Your task to perform on an android device: turn off picture-in-picture Image 0: 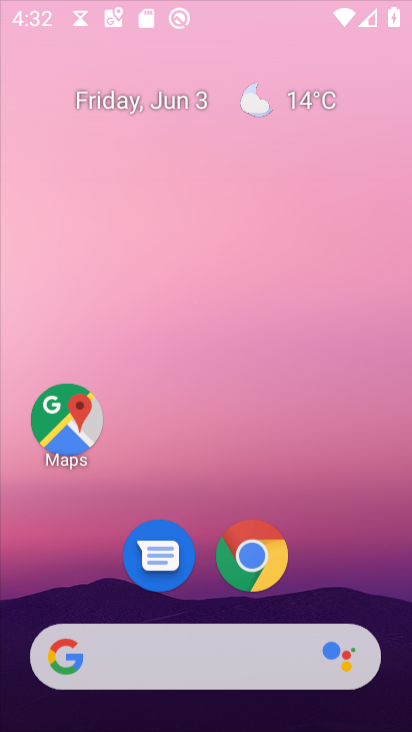
Step 0: drag from (276, 632) to (404, 146)
Your task to perform on an android device: turn off picture-in-picture Image 1: 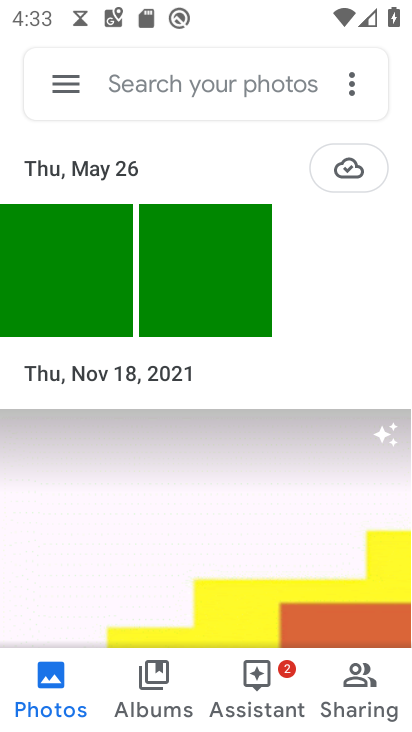
Step 1: press home button
Your task to perform on an android device: turn off picture-in-picture Image 2: 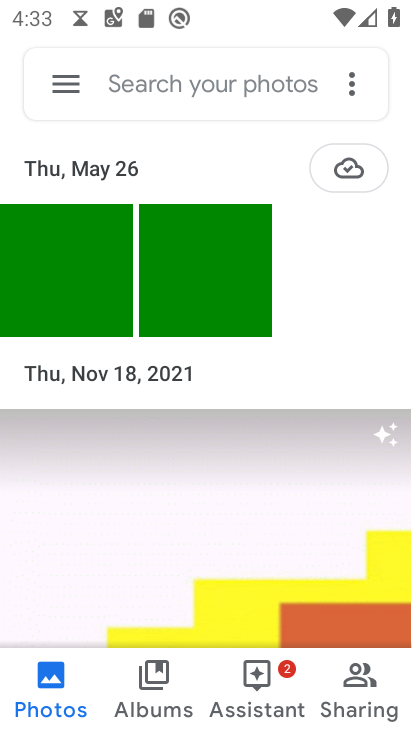
Step 2: press home button
Your task to perform on an android device: turn off picture-in-picture Image 3: 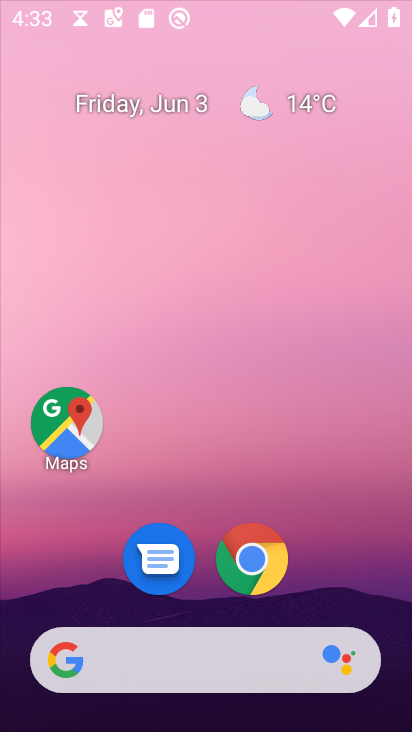
Step 3: press home button
Your task to perform on an android device: turn off picture-in-picture Image 4: 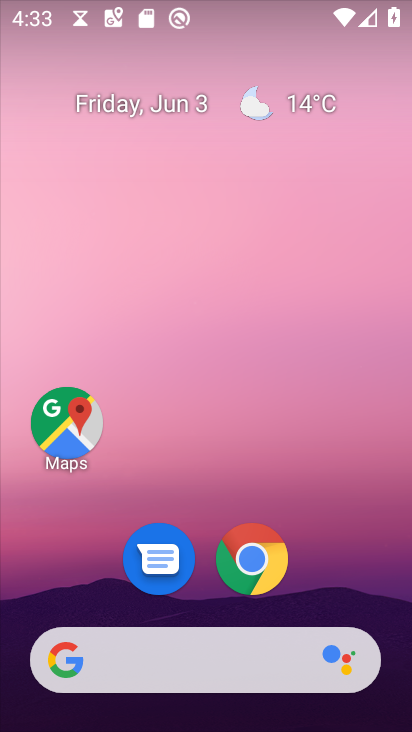
Step 4: drag from (228, 672) to (100, 44)
Your task to perform on an android device: turn off picture-in-picture Image 5: 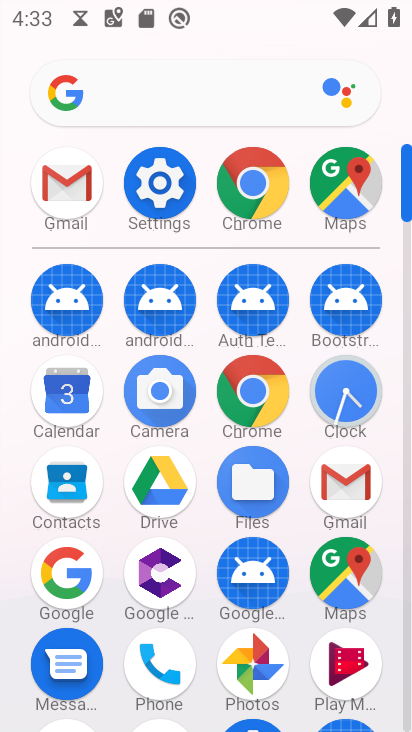
Step 5: click (259, 185)
Your task to perform on an android device: turn off picture-in-picture Image 6: 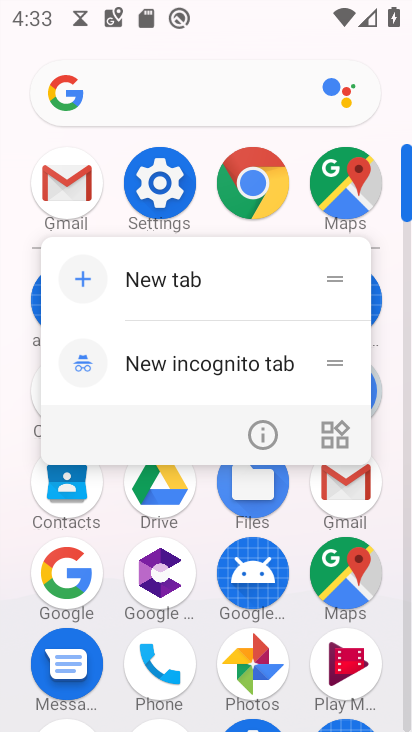
Step 6: click (257, 441)
Your task to perform on an android device: turn off picture-in-picture Image 7: 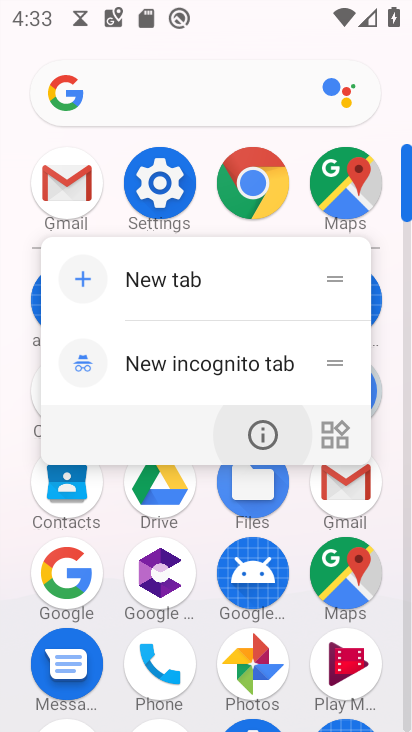
Step 7: click (257, 441)
Your task to perform on an android device: turn off picture-in-picture Image 8: 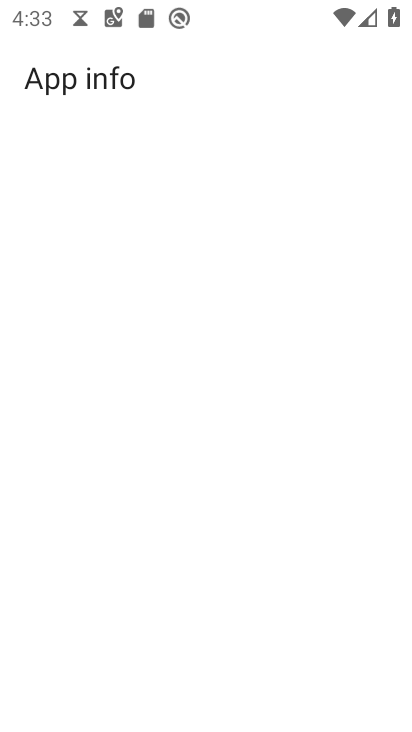
Step 8: click (258, 440)
Your task to perform on an android device: turn off picture-in-picture Image 9: 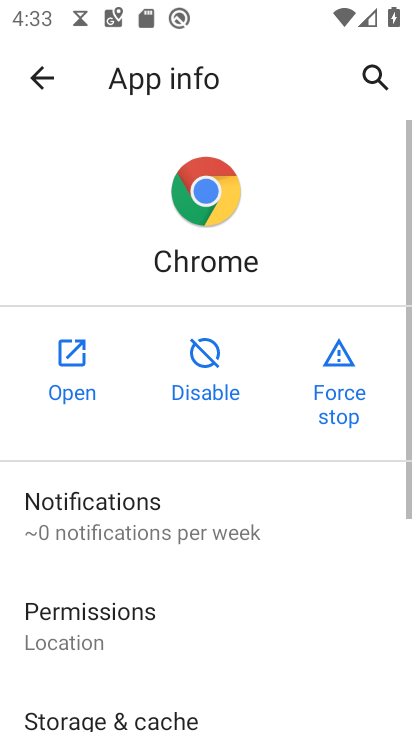
Step 9: drag from (204, 529) to (185, 110)
Your task to perform on an android device: turn off picture-in-picture Image 10: 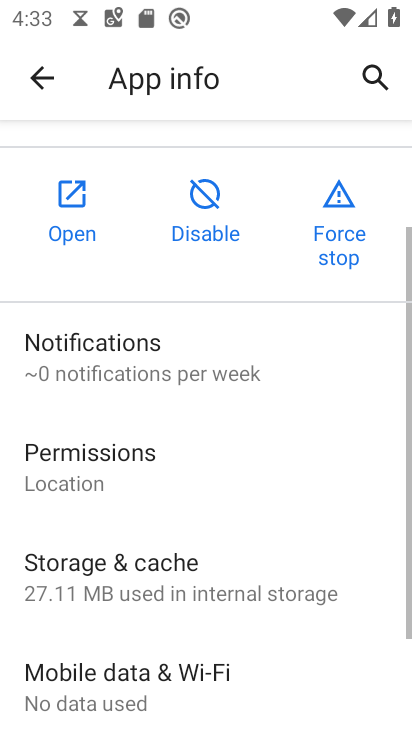
Step 10: drag from (162, 455) to (164, 98)
Your task to perform on an android device: turn off picture-in-picture Image 11: 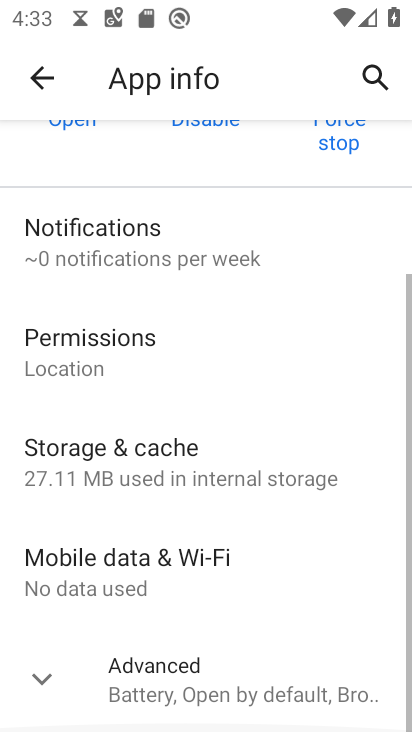
Step 11: drag from (258, 533) to (169, 104)
Your task to perform on an android device: turn off picture-in-picture Image 12: 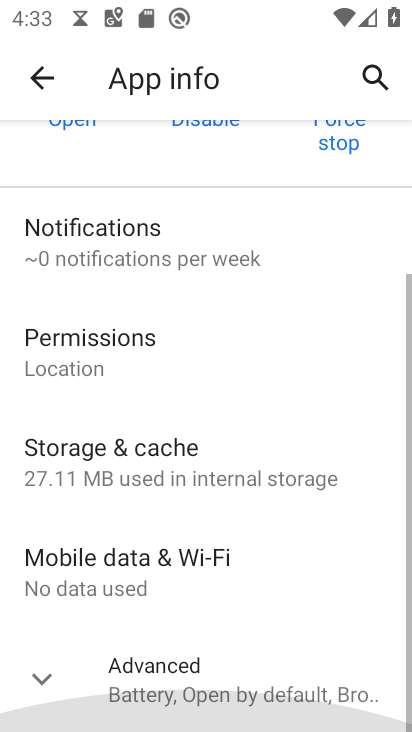
Step 12: drag from (197, 417) to (156, 65)
Your task to perform on an android device: turn off picture-in-picture Image 13: 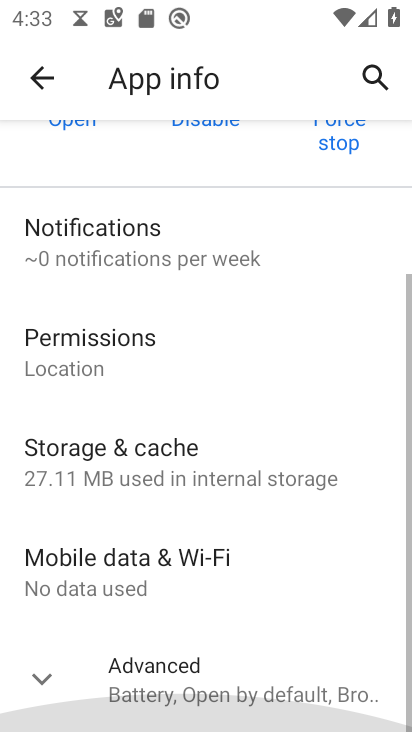
Step 13: drag from (193, 472) to (144, 162)
Your task to perform on an android device: turn off picture-in-picture Image 14: 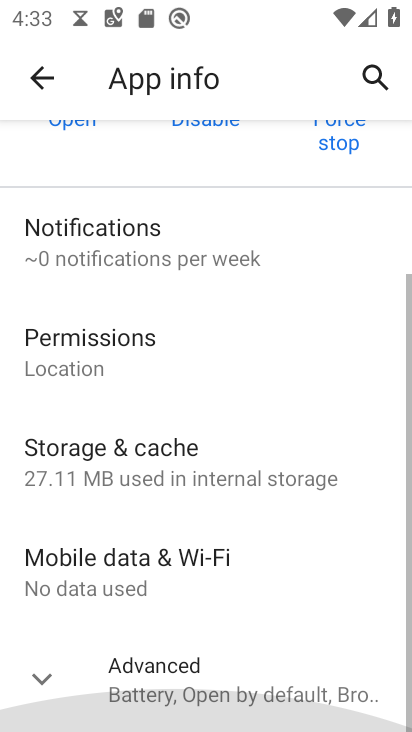
Step 14: drag from (144, 498) to (118, 222)
Your task to perform on an android device: turn off picture-in-picture Image 15: 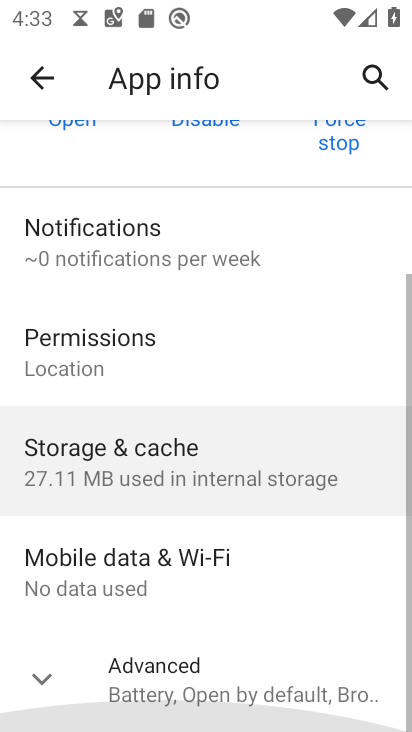
Step 15: drag from (195, 492) to (167, 303)
Your task to perform on an android device: turn off picture-in-picture Image 16: 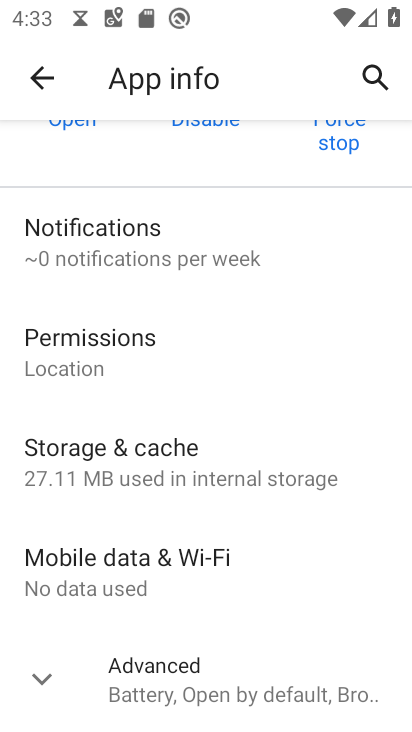
Step 16: drag from (102, 623) to (83, 307)
Your task to perform on an android device: turn off picture-in-picture Image 17: 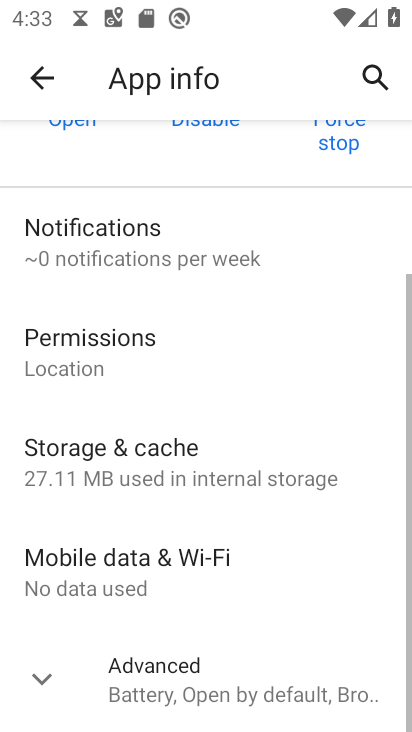
Step 17: drag from (127, 443) to (84, 272)
Your task to perform on an android device: turn off picture-in-picture Image 18: 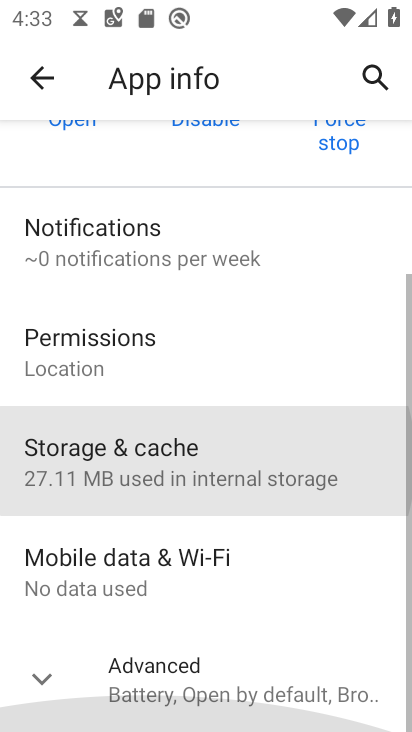
Step 18: drag from (98, 532) to (70, 280)
Your task to perform on an android device: turn off picture-in-picture Image 19: 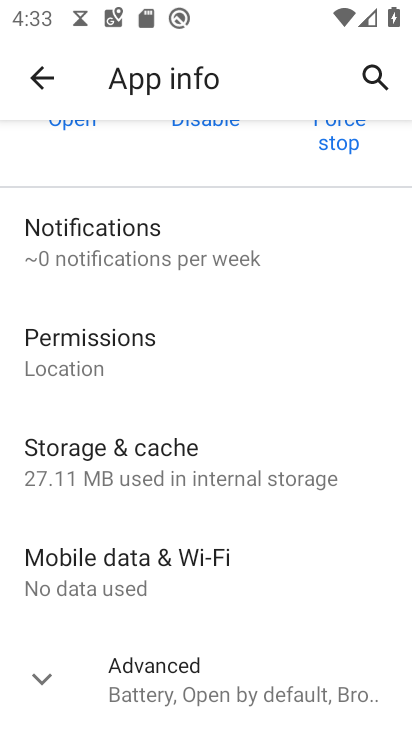
Step 19: drag from (158, 501) to (143, 281)
Your task to perform on an android device: turn off picture-in-picture Image 20: 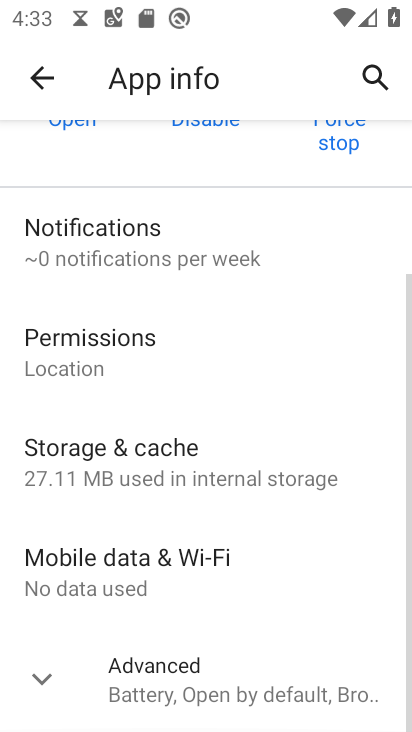
Step 20: drag from (173, 489) to (156, 276)
Your task to perform on an android device: turn off picture-in-picture Image 21: 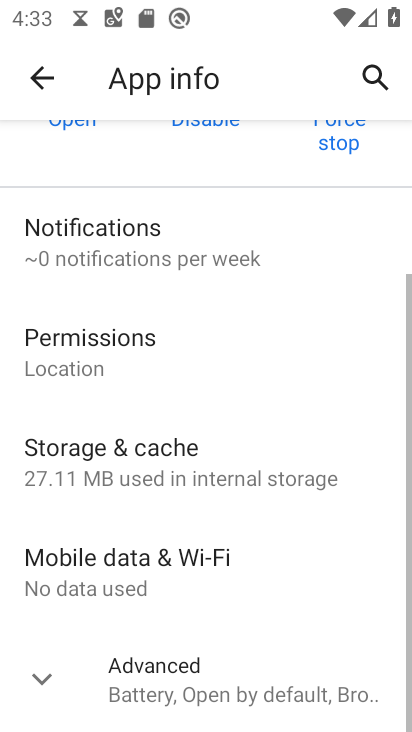
Step 21: click (160, 678)
Your task to perform on an android device: turn off picture-in-picture Image 22: 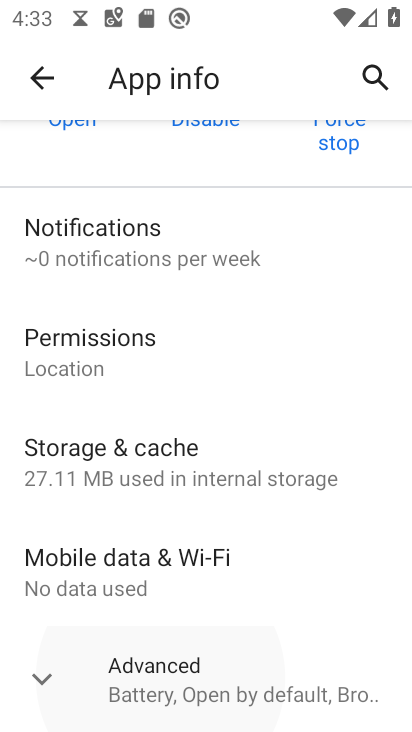
Step 22: click (157, 680)
Your task to perform on an android device: turn off picture-in-picture Image 23: 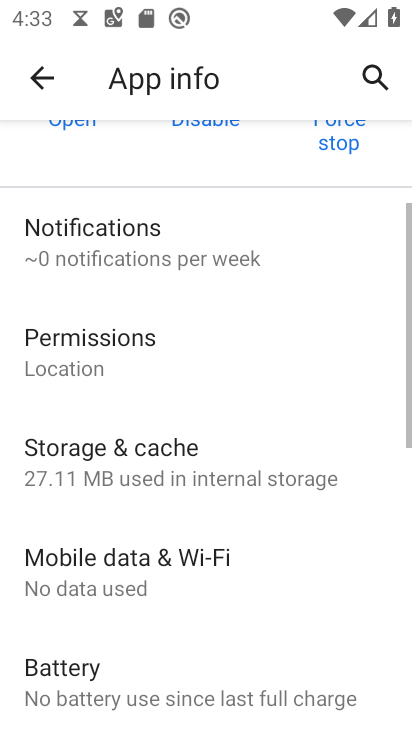
Step 23: drag from (173, 523) to (173, 190)
Your task to perform on an android device: turn off picture-in-picture Image 24: 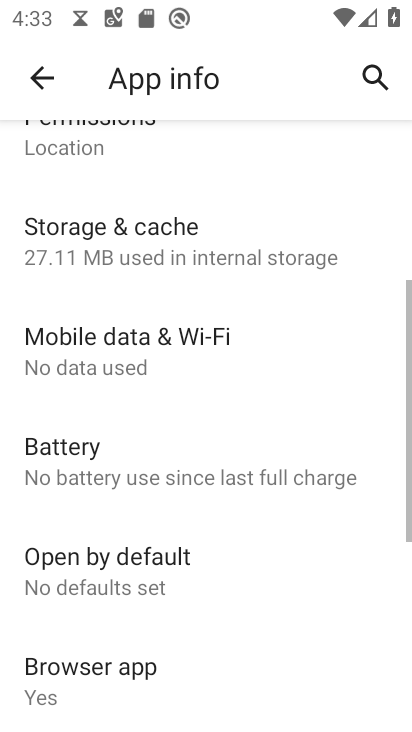
Step 24: drag from (211, 474) to (161, 109)
Your task to perform on an android device: turn off picture-in-picture Image 25: 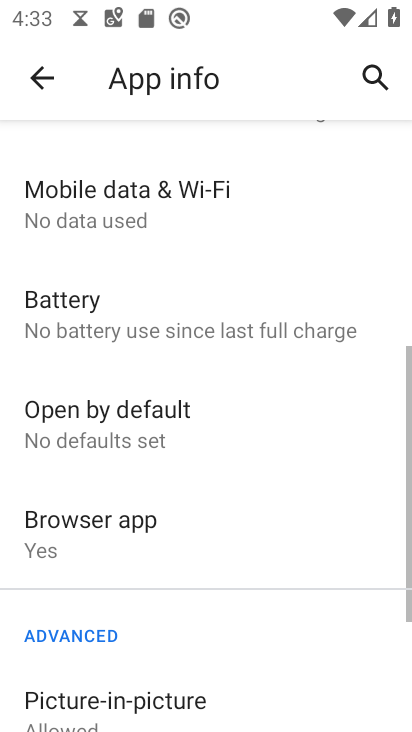
Step 25: drag from (201, 474) to (204, 241)
Your task to perform on an android device: turn off picture-in-picture Image 26: 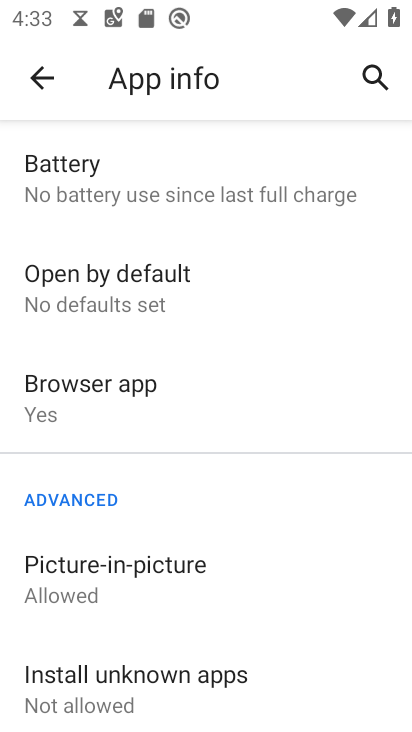
Step 26: drag from (98, 234) to (174, 577)
Your task to perform on an android device: turn off picture-in-picture Image 27: 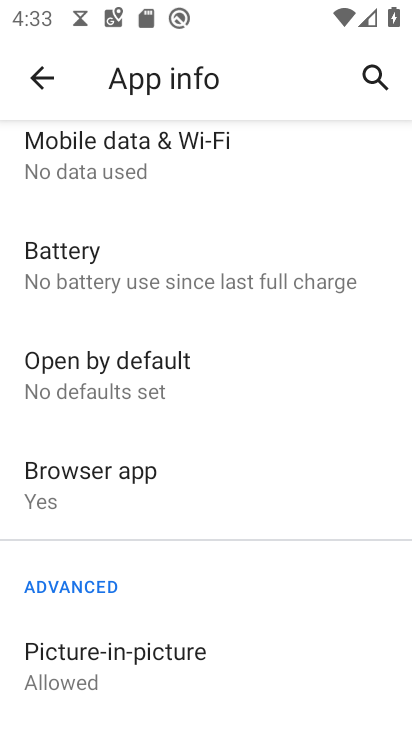
Step 27: drag from (114, 511) to (72, 204)
Your task to perform on an android device: turn off picture-in-picture Image 28: 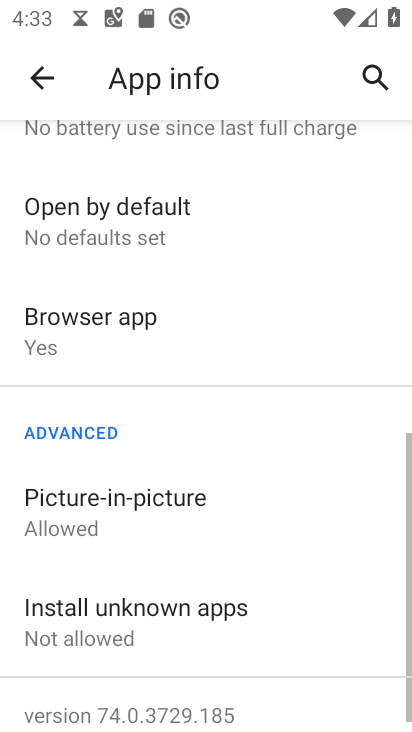
Step 28: drag from (128, 453) to (108, 233)
Your task to perform on an android device: turn off picture-in-picture Image 29: 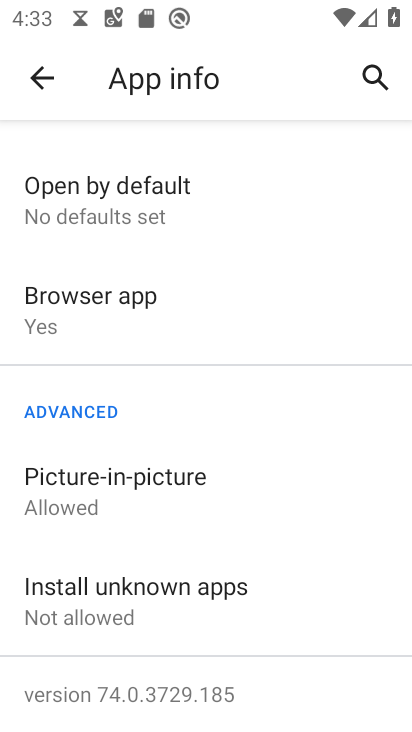
Step 29: click (57, 474)
Your task to perform on an android device: turn off picture-in-picture Image 30: 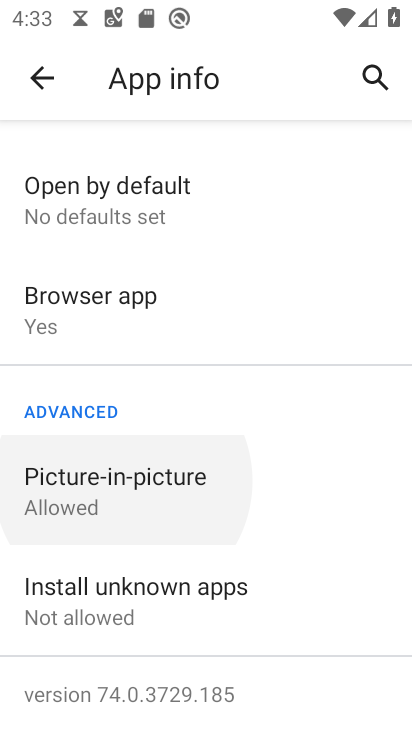
Step 30: click (57, 474)
Your task to perform on an android device: turn off picture-in-picture Image 31: 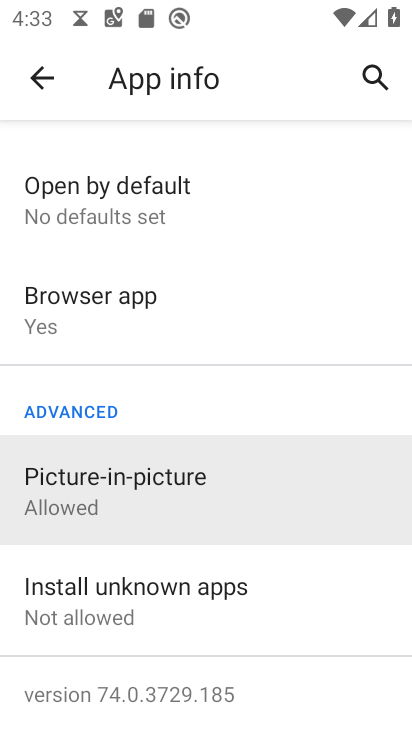
Step 31: click (57, 474)
Your task to perform on an android device: turn off picture-in-picture Image 32: 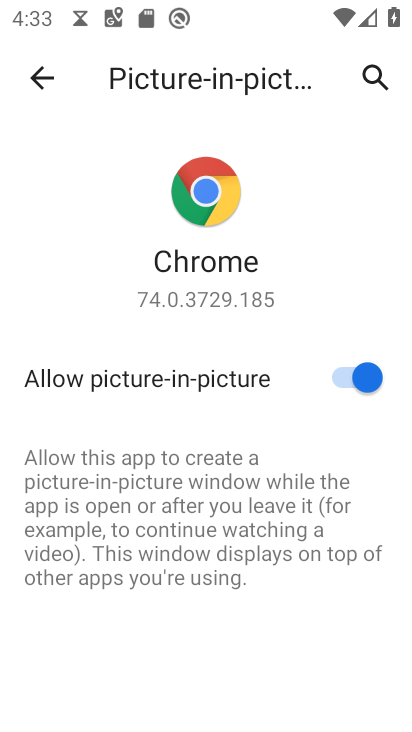
Step 32: click (372, 374)
Your task to perform on an android device: turn off picture-in-picture Image 33: 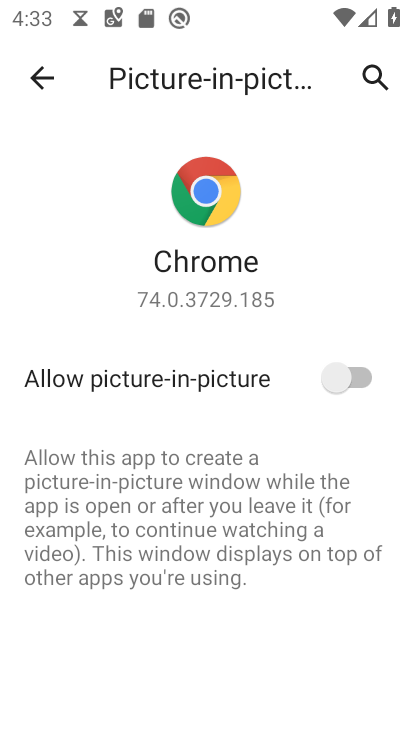
Step 33: task complete